Your task to perform on an android device: Open display settings Image 0: 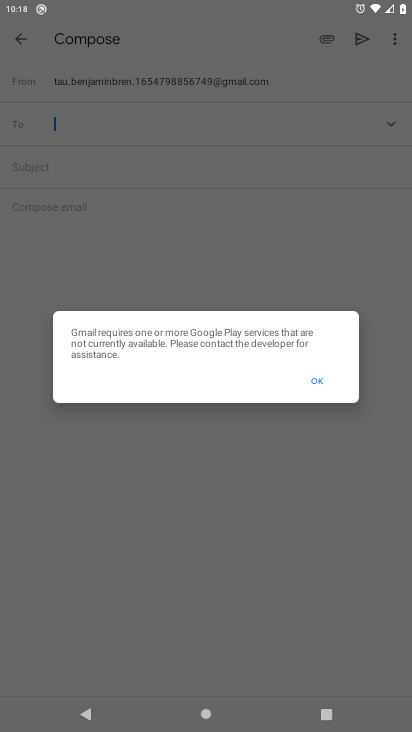
Step 0: press home button
Your task to perform on an android device: Open display settings Image 1: 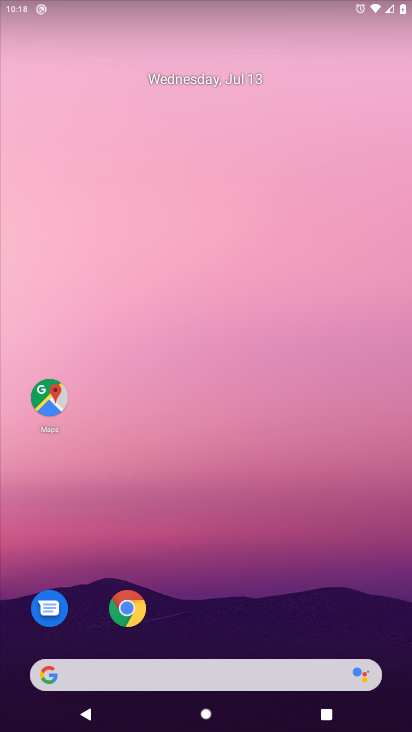
Step 1: drag from (32, 698) to (347, 30)
Your task to perform on an android device: Open display settings Image 2: 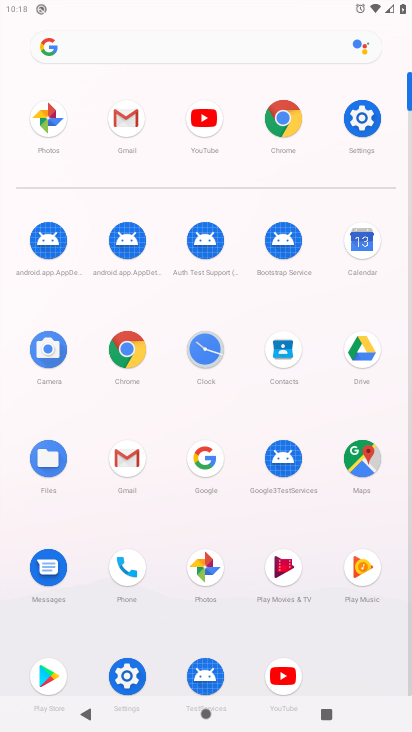
Step 2: click (113, 667)
Your task to perform on an android device: Open display settings Image 3: 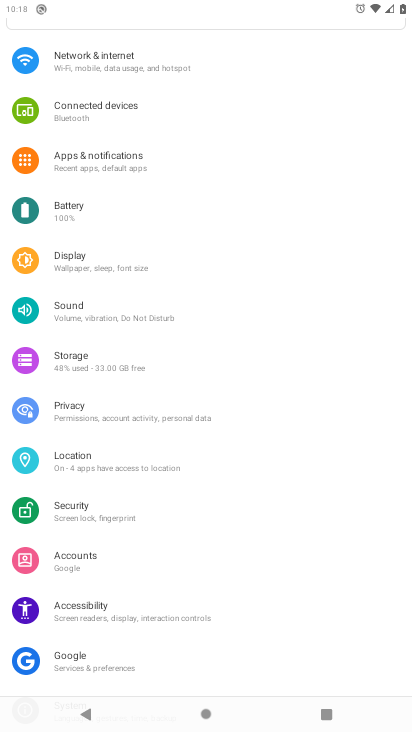
Step 3: click (98, 264)
Your task to perform on an android device: Open display settings Image 4: 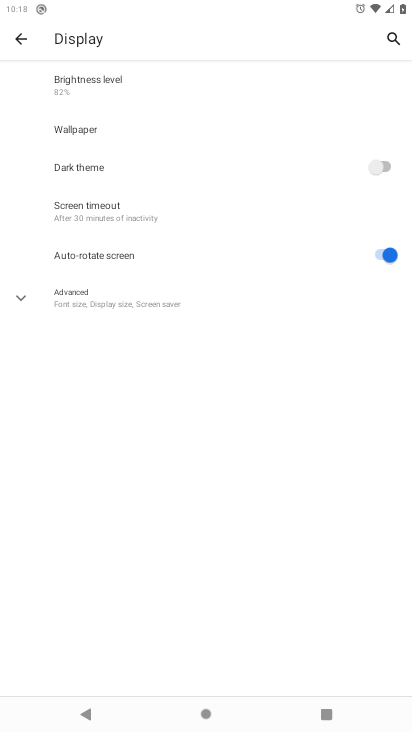
Step 4: task complete